Your task to perform on an android device: Open Google Chrome and click the shortcut for Amazon.com Image 0: 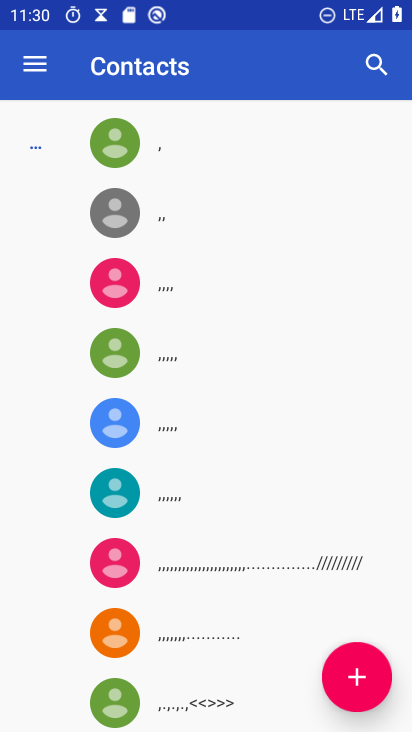
Step 0: press home button
Your task to perform on an android device: Open Google Chrome and click the shortcut for Amazon.com Image 1: 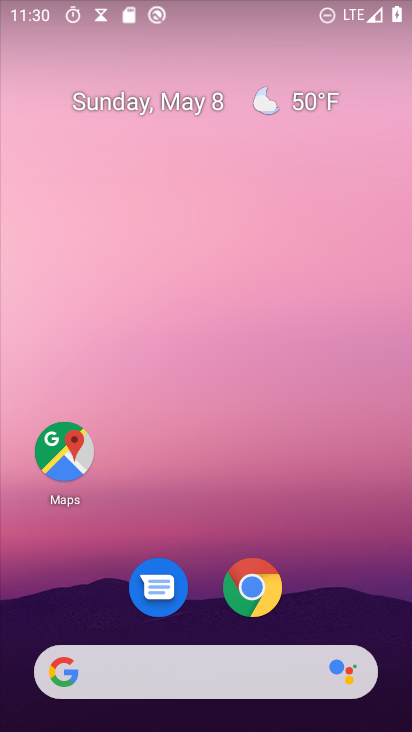
Step 1: click (263, 601)
Your task to perform on an android device: Open Google Chrome and click the shortcut for Amazon.com Image 2: 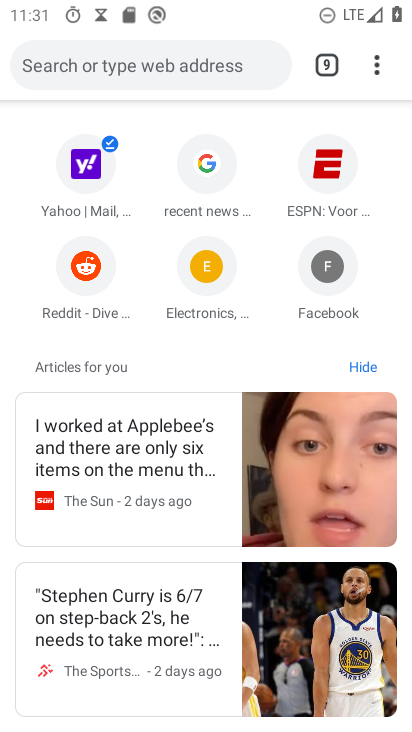
Step 2: task complete